Your task to perform on an android device: check out phone information Image 0: 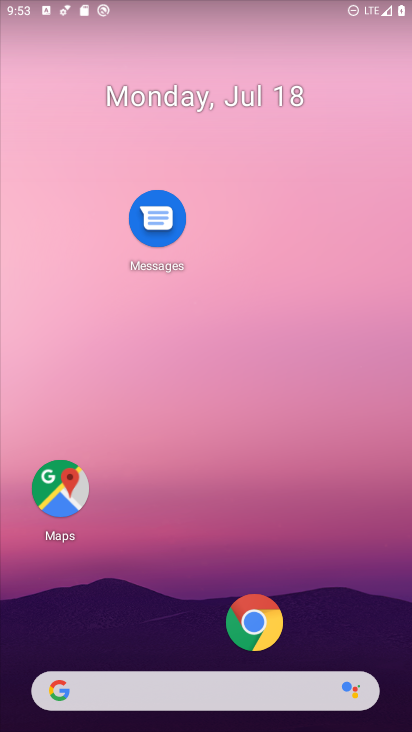
Step 0: drag from (211, 685) to (207, 214)
Your task to perform on an android device: check out phone information Image 1: 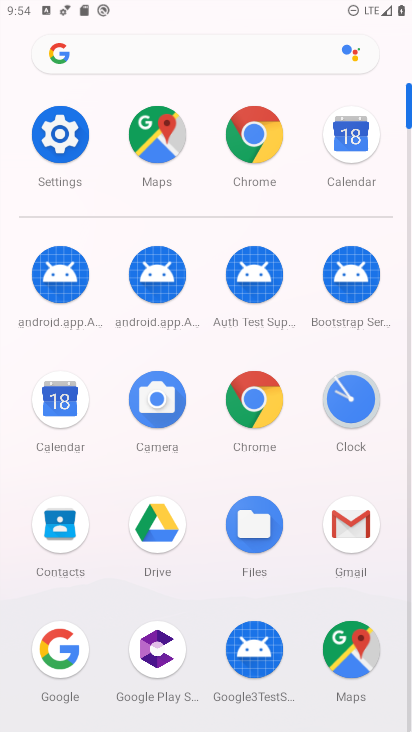
Step 1: click (48, 146)
Your task to perform on an android device: check out phone information Image 2: 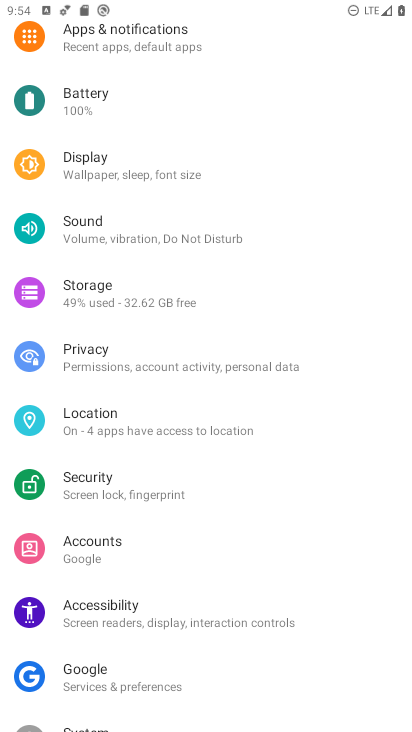
Step 2: drag from (227, 576) to (228, 142)
Your task to perform on an android device: check out phone information Image 3: 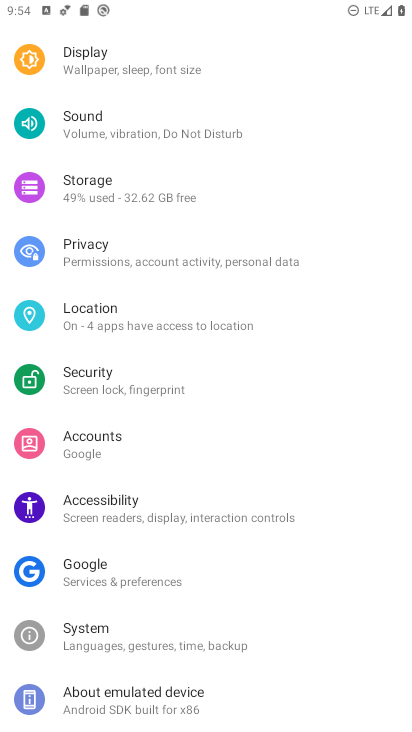
Step 3: drag from (204, 636) to (252, 241)
Your task to perform on an android device: check out phone information Image 4: 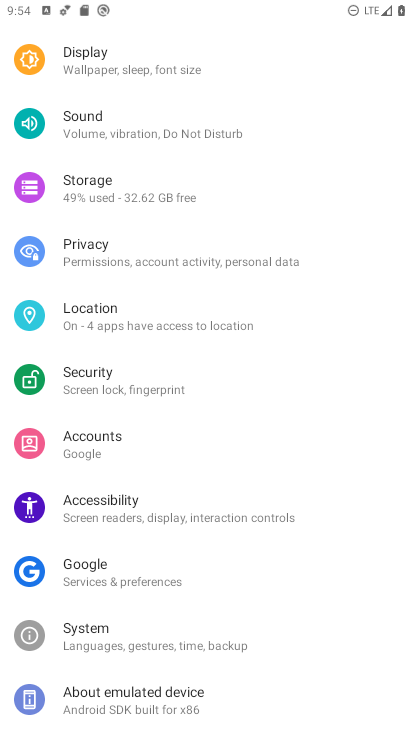
Step 4: drag from (150, 636) to (192, 358)
Your task to perform on an android device: check out phone information Image 5: 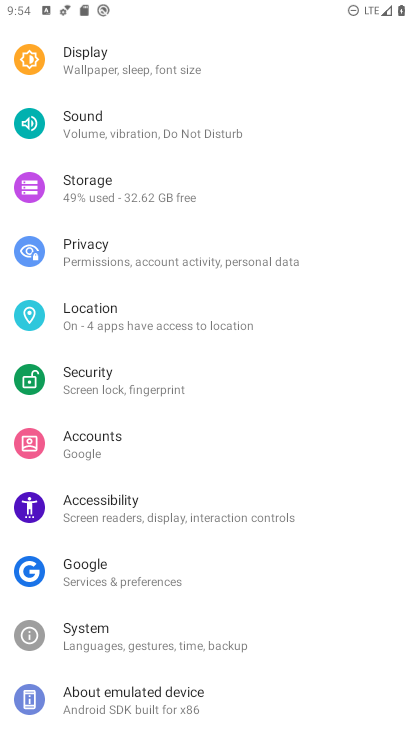
Step 5: click (119, 709)
Your task to perform on an android device: check out phone information Image 6: 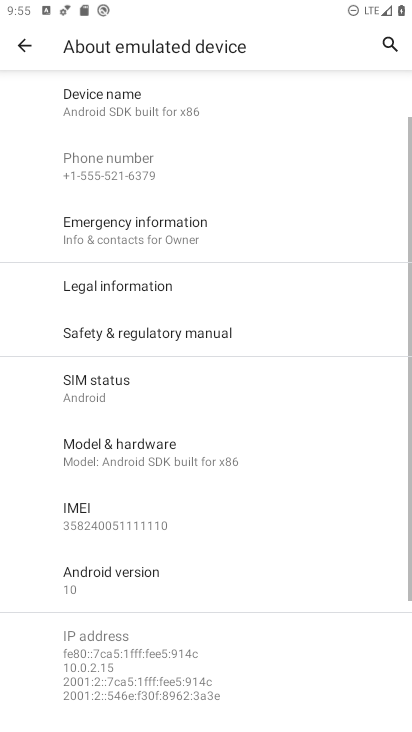
Step 6: task complete